Your task to perform on an android device: Open settings on Google Maps Image 0: 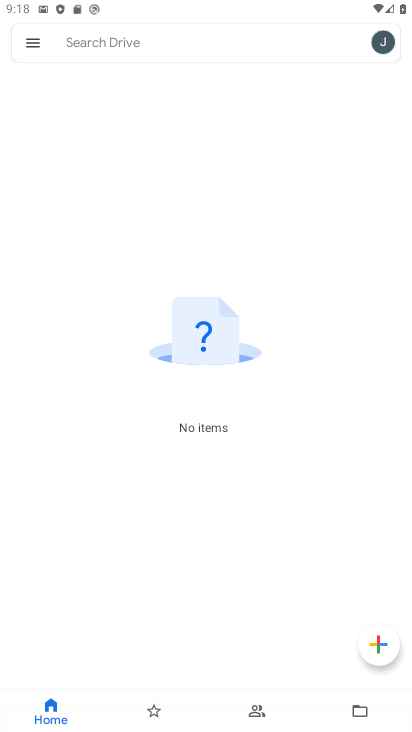
Step 0: press home button
Your task to perform on an android device: Open settings on Google Maps Image 1: 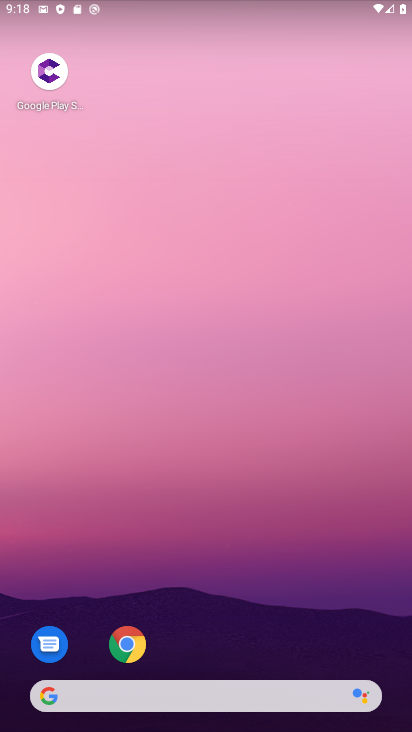
Step 1: drag from (313, 465) to (332, 33)
Your task to perform on an android device: Open settings on Google Maps Image 2: 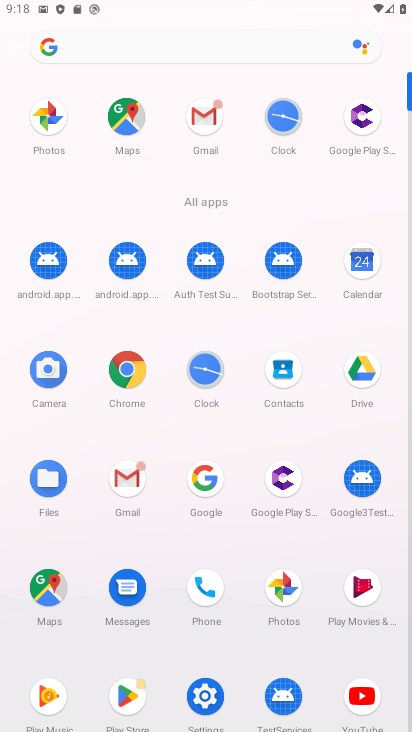
Step 2: click (126, 118)
Your task to perform on an android device: Open settings on Google Maps Image 3: 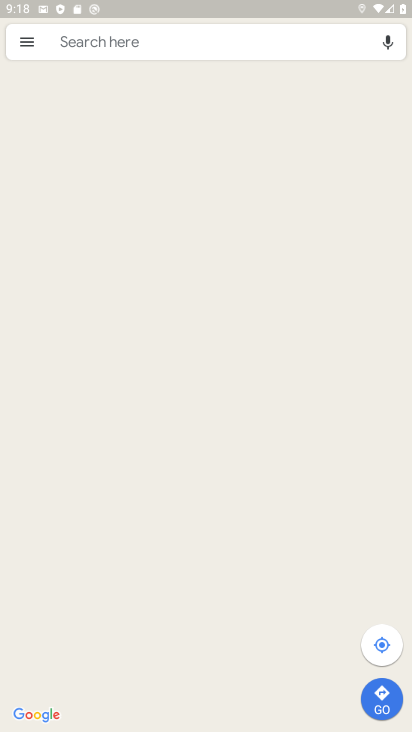
Step 3: click (18, 47)
Your task to perform on an android device: Open settings on Google Maps Image 4: 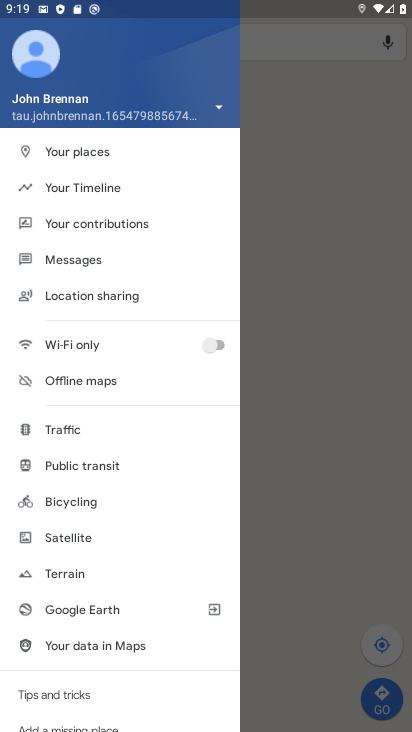
Step 4: drag from (63, 662) to (182, 0)
Your task to perform on an android device: Open settings on Google Maps Image 5: 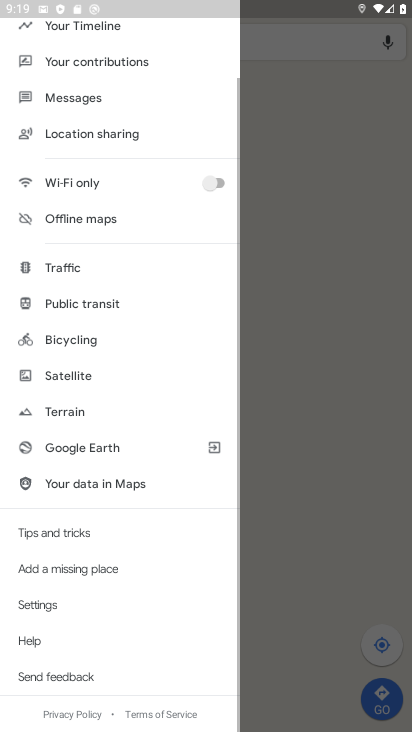
Step 5: drag from (103, 663) to (208, 197)
Your task to perform on an android device: Open settings on Google Maps Image 6: 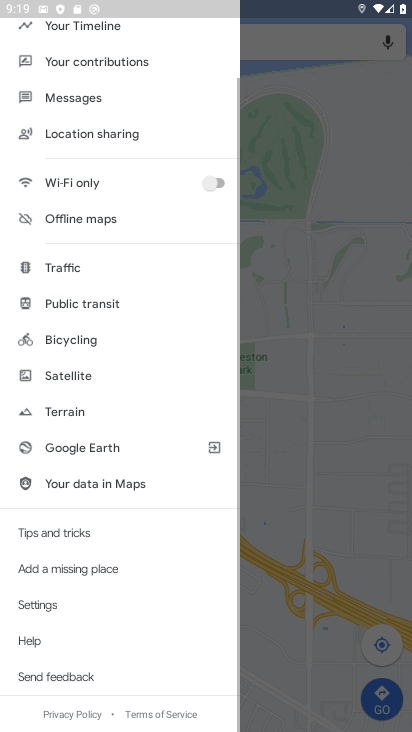
Step 6: drag from (53, 663) to (143, 178)
Your task to perform on an android device: Open settings on Google Maps Image 7: 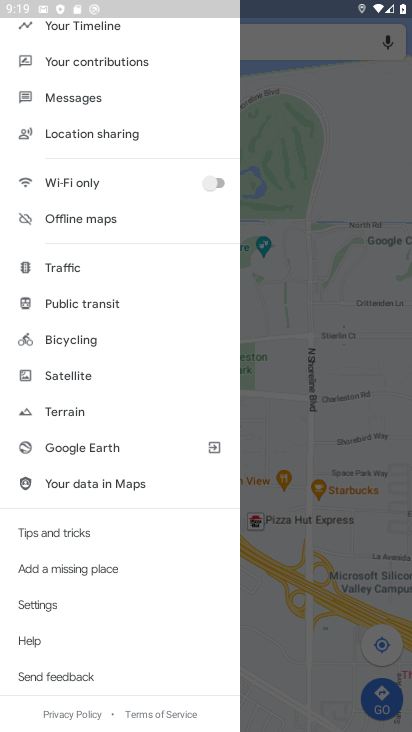
Step 7: click (45, 608)
Your task to perform on an android device: Open settings on Google Maps Image 8: 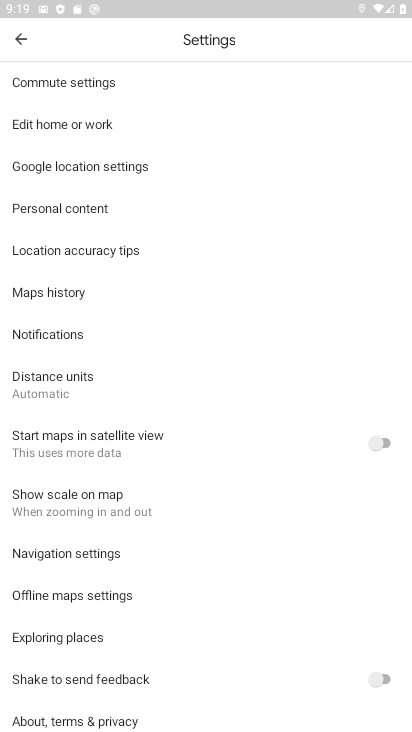
Step 8: task complete